Your task to perform on an android device: Search for "razer nari" on newegg, select the first entry, add it to the cart, then select checkout. Image 0: 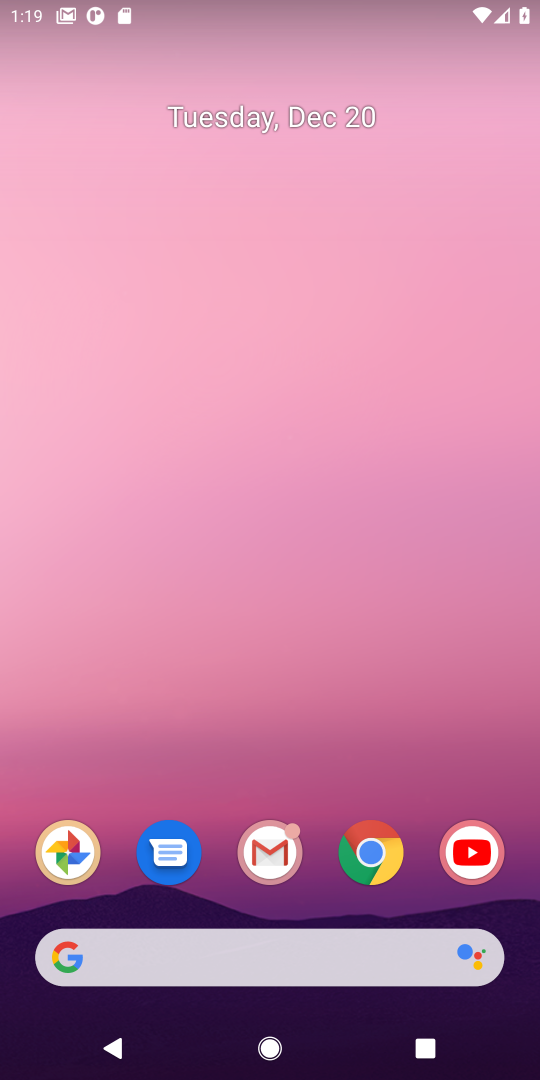
Step 0: click (381, 853)
Your task to perform on an android device: Search for "razer nari" on newegg, select the first entry, add it to the cart, then select checkout. Image 1: 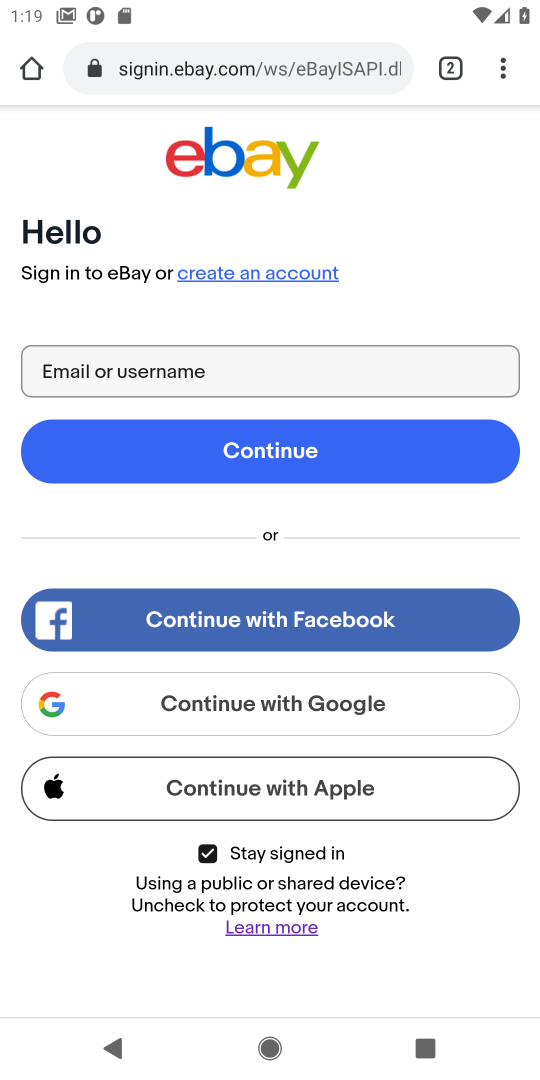
Step 1: click (191, 73)
Your task to perform on an android device: Search for "razer nari" on newegg, select the first entry, add it to the cart, then select checkout. Image 2: 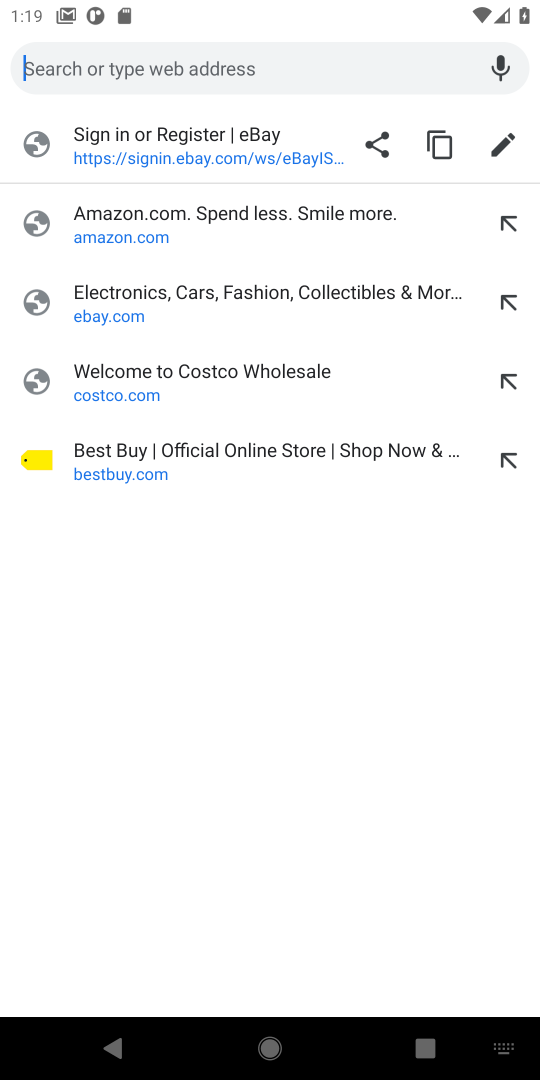
Step 2: type "newegg.com"
Your task to perform on an android device: Search for "razer nari" on newegg, select the first entry, add it to the cart, then select checkout. Image 3: 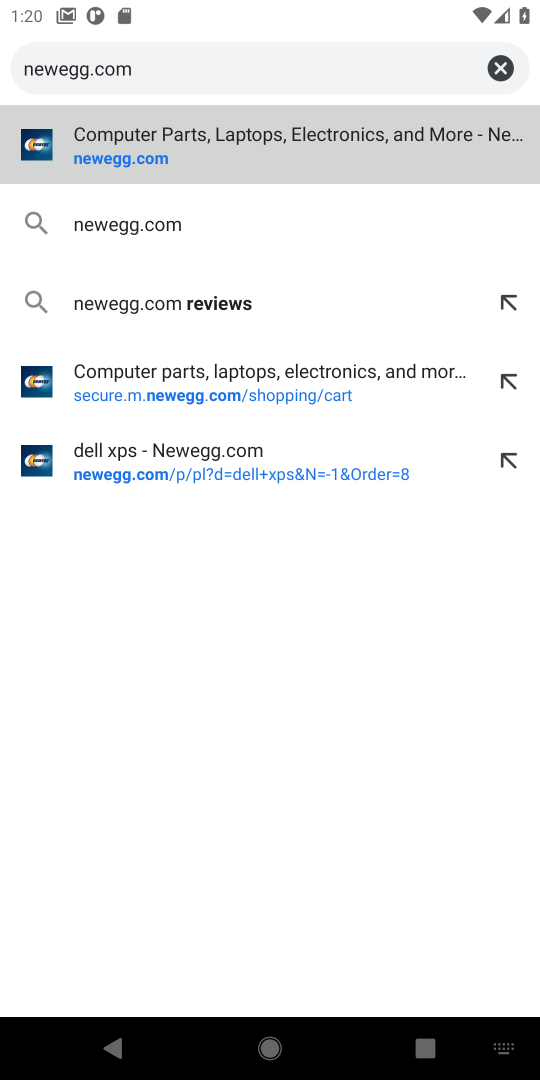
Step 3: click (136, 168)
Your task to perform on an android device: Search for "razer nari" on newegg, select the first entry, add it to the cart, then select checkout. Image 4: 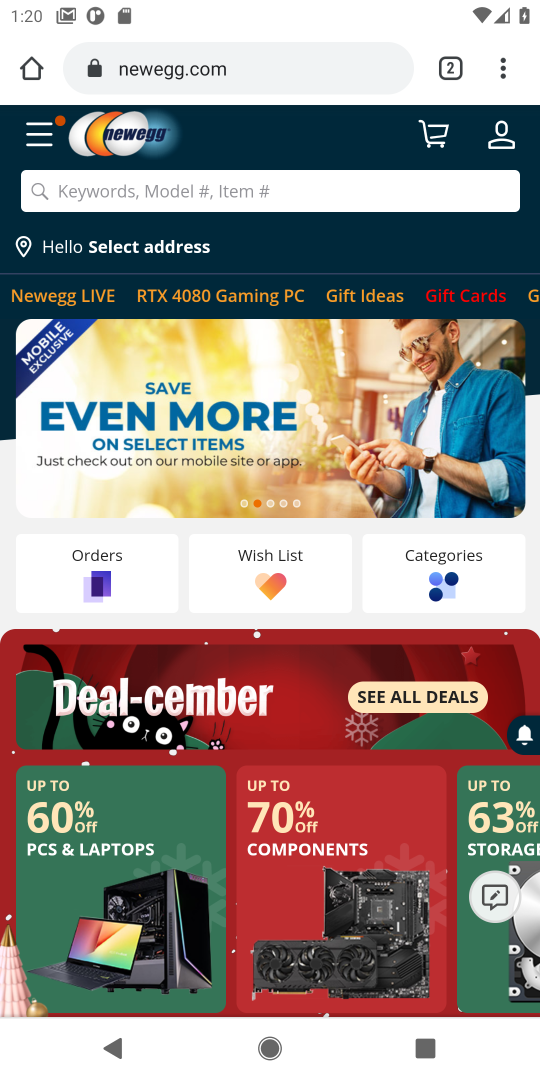
Step 4: click (78, 198)
Your task to perform on an android device: Search for "razer nari" on newegg, select the first entry, add it to the cart, then select checkout. Image 5: 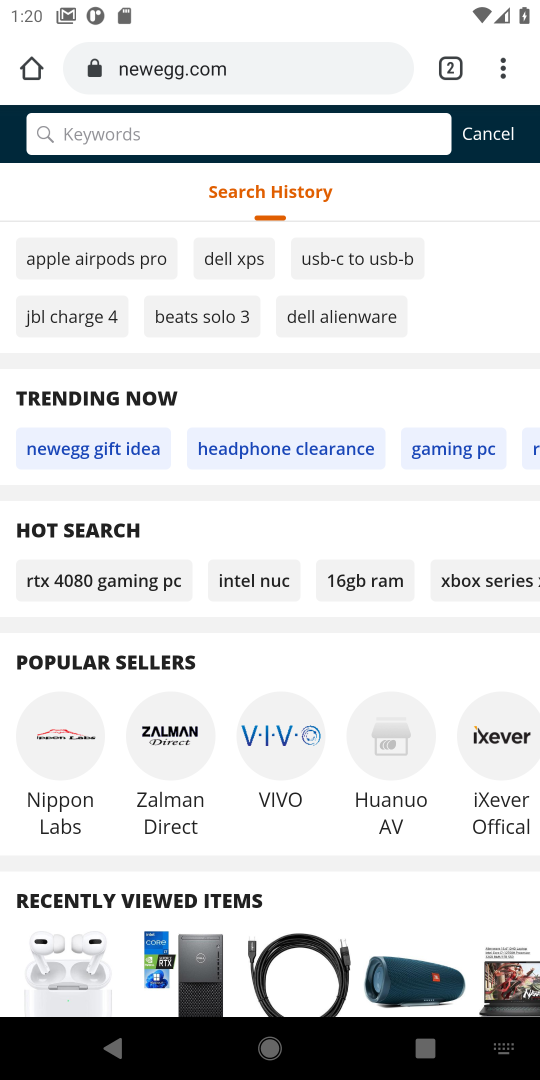
Step 5: type "razer nari"
Your task to perform on an android device: Search for "razer nari" on newegg, select the first entry, add it to the cart, then select checkout. Image 6: 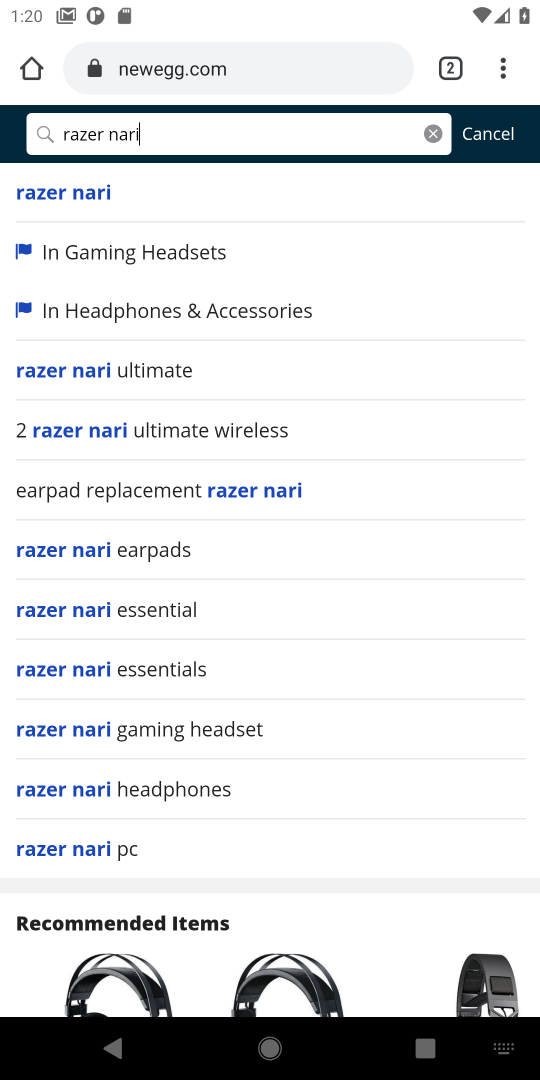
Step 6: click (48, 201)
Your task to perform on an android device: Search for "razer nari" on newegg, select the first entry, add it to the cart, then select checkout. Image 7: 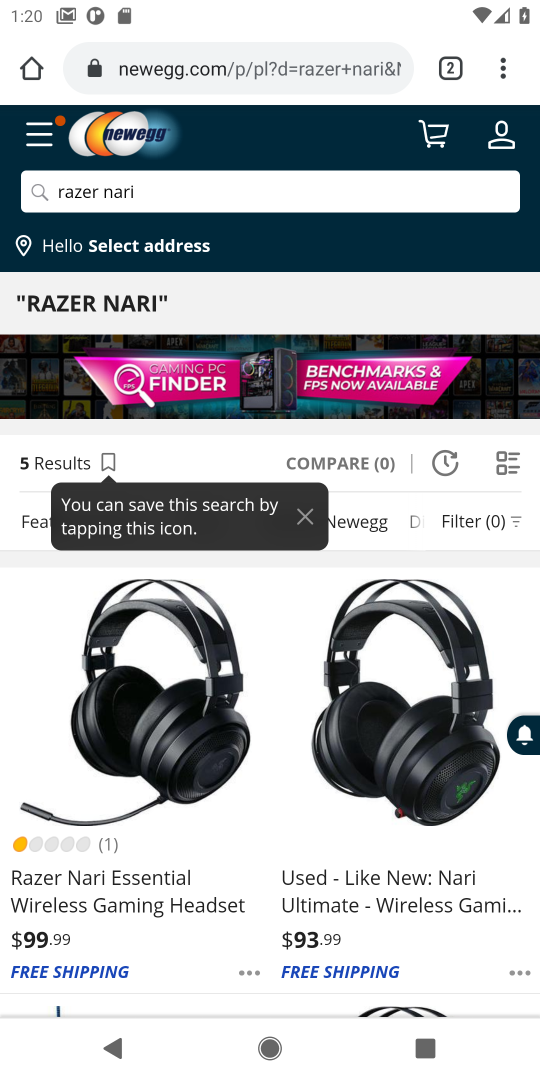
Step 7: click (148, 886)
Your task to perform on an android device: Search for "razer nari" on newegg, select the first entry, add it to the cart, then select checkout. Image 8: 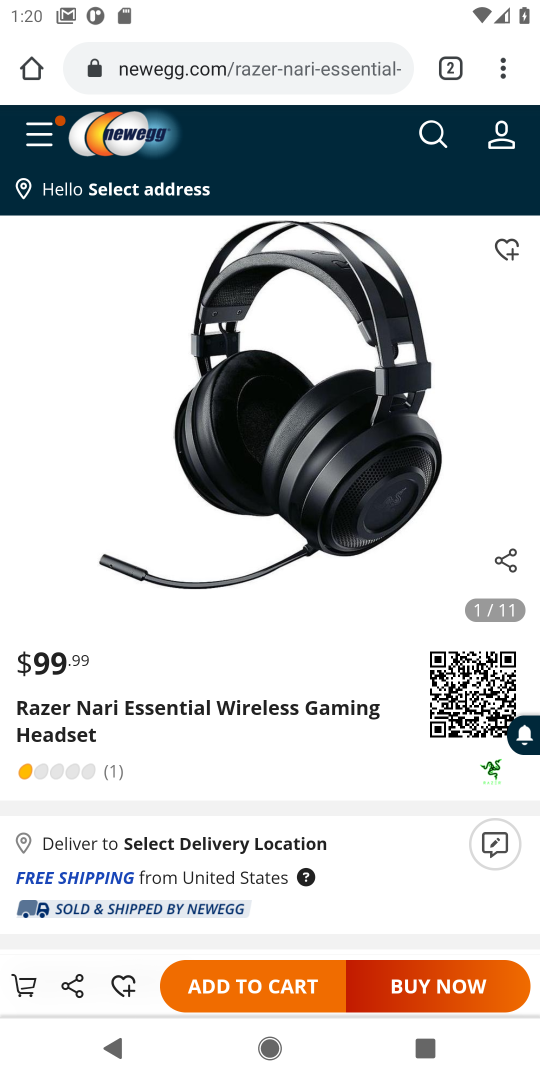
Step 8: click (241, 988)
Your task to perform on an android device: Search for "razer nari" on newegg, select the first entry, add it to the cart, then select checkout. Image 9: 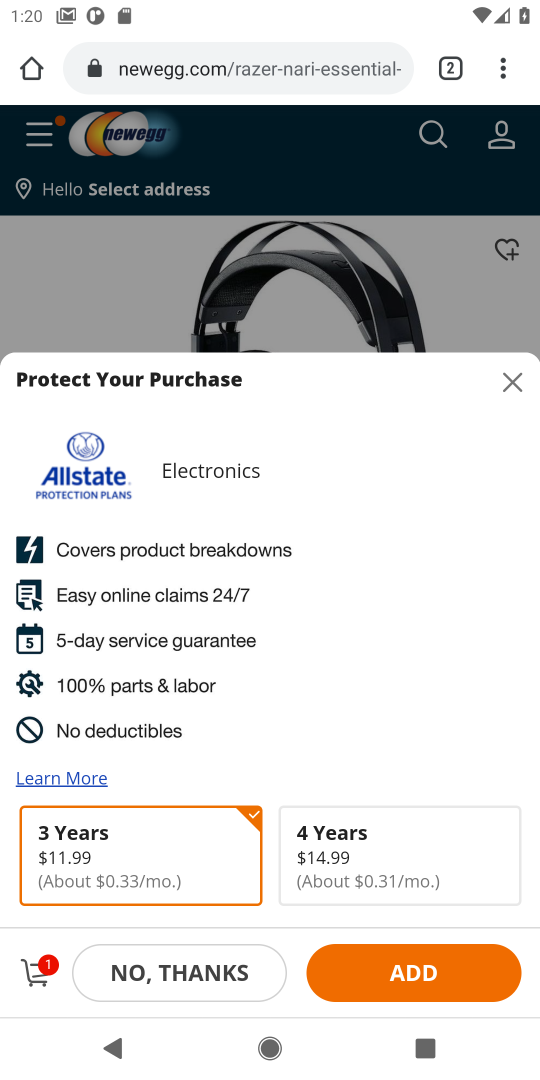
Step 9: click (41, 965)
Your task to perform on an android device: Search for "razer nari" on newegg, select the first entry, add it to the cart, then select checkout. Image 10: 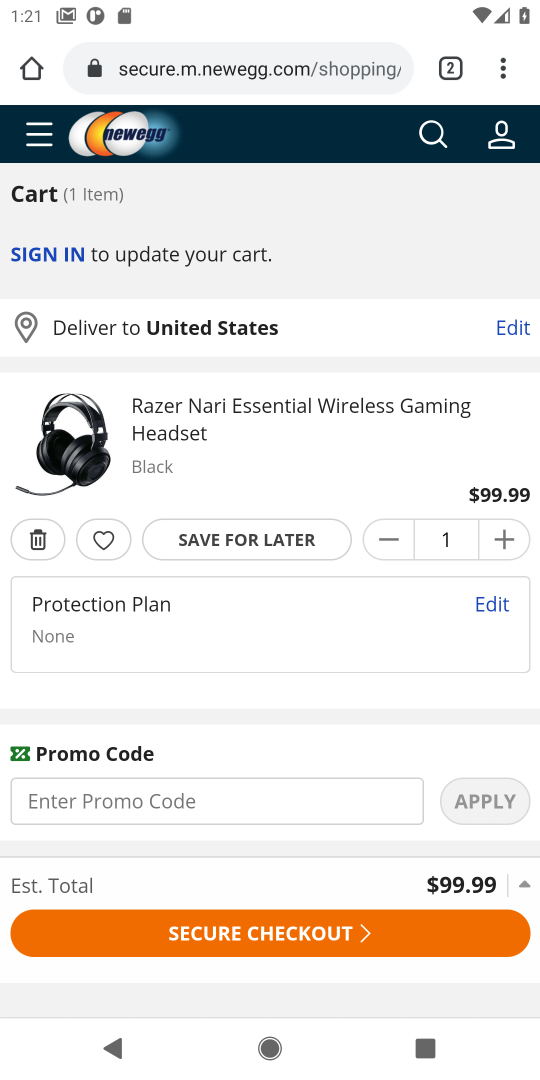
Step 10: click (224, 922)
Your task to perform on an android device: Search for "razer nari" on newegg, select the first entry, add it to the cart, then select checkout. Image 11: 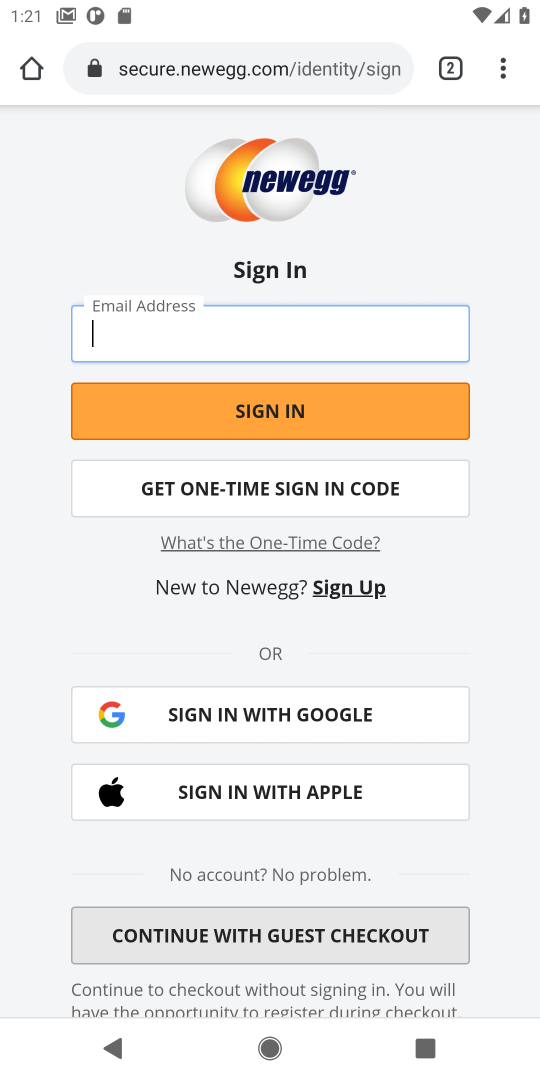
Step 11: task complete